Your task to perform on an android device: Open settings Image 0: 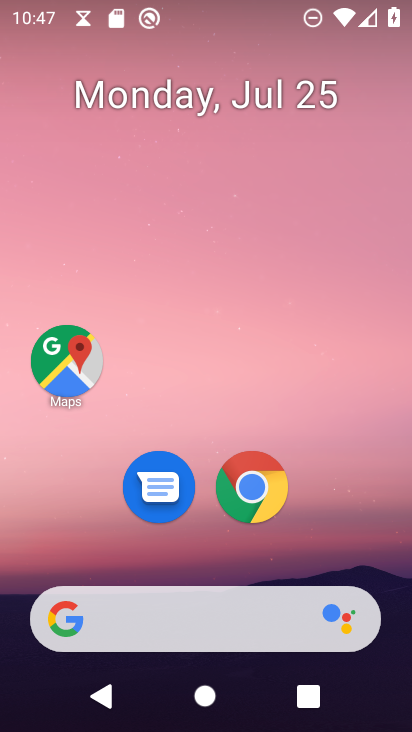
Step 0: drag from (170, 565) to (110, 5)
Your task to perform on an android device: Open settings Image 1: 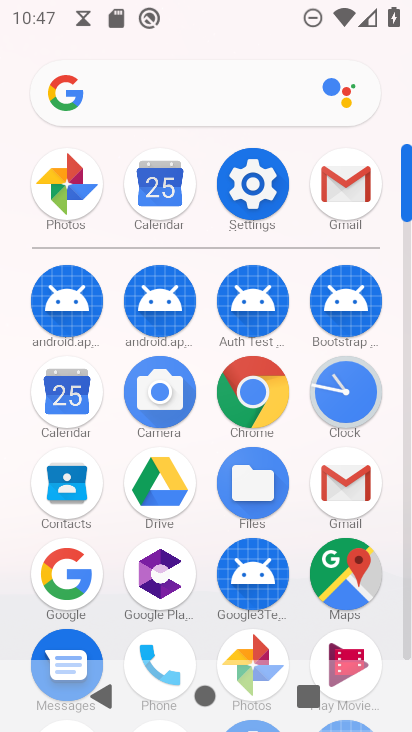
Step 1: click (257, 188)
Your task to perform on an android device: Open settings Image 2: 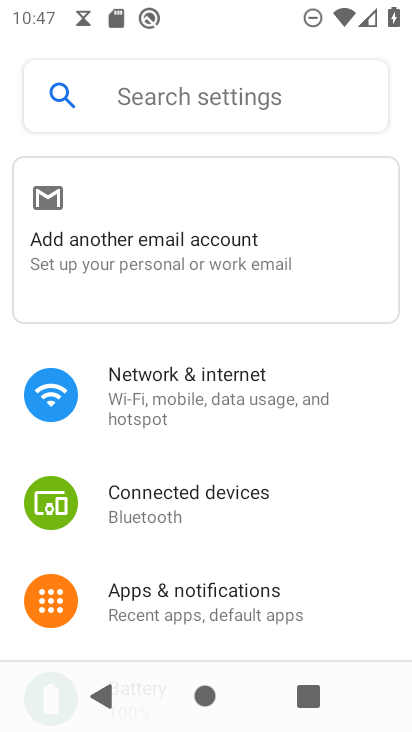
Step 2: task complete